Your task to perform on an android device: toggle priority inbox in the gmail app Image 0: 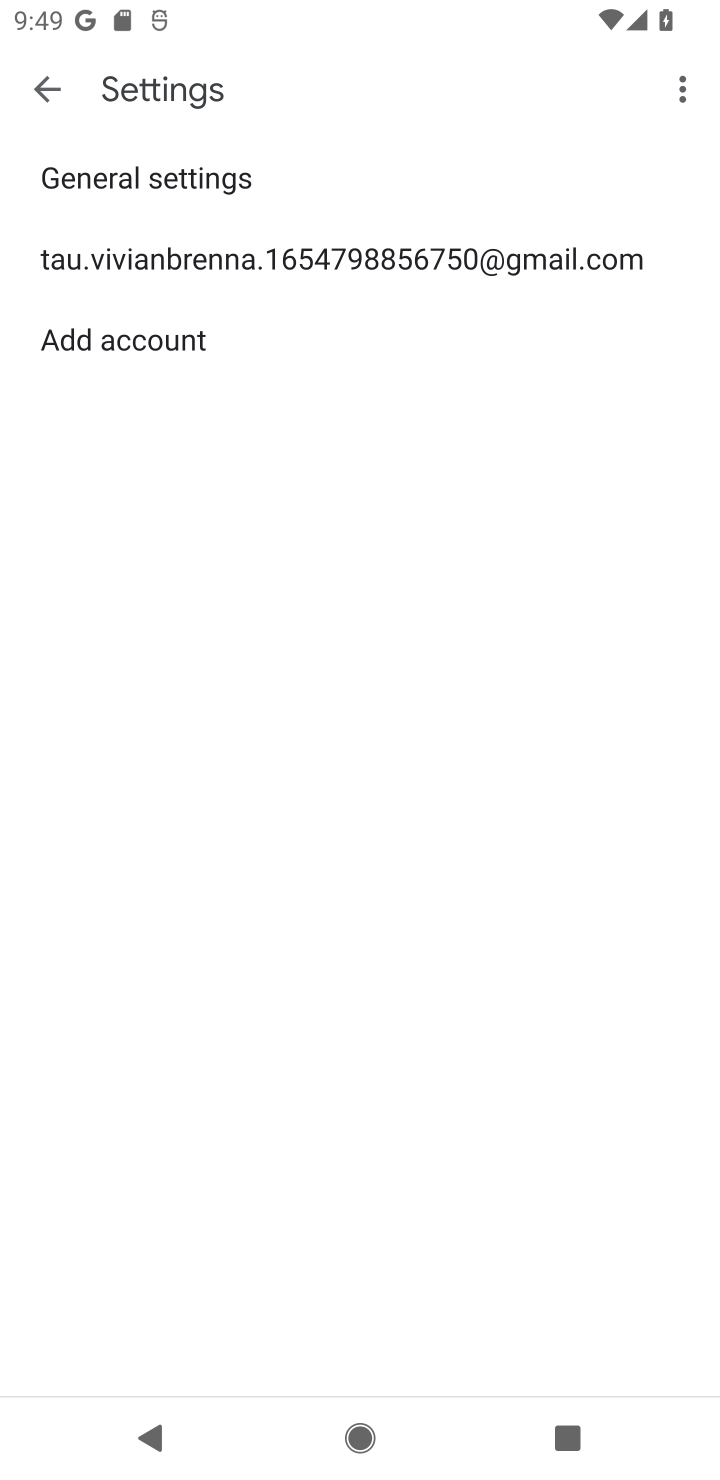
Step 0: press home button
Your task to perform on an android device: toggle priority inbox in the gmail app Image 1: 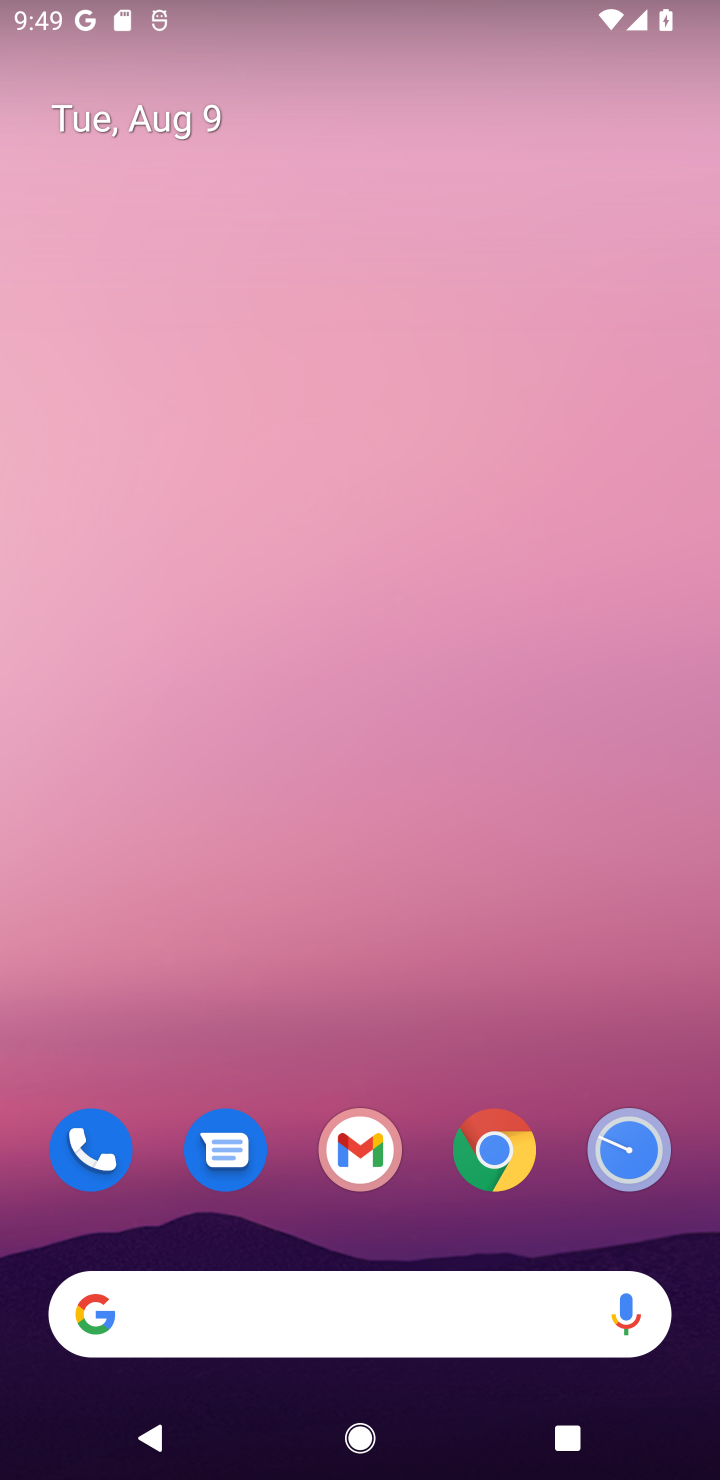
Step 1: drag from (337, 1249) to (299, 222)
Your task to perform on an android device: toggle priority inbox in the gmail app Image 2: 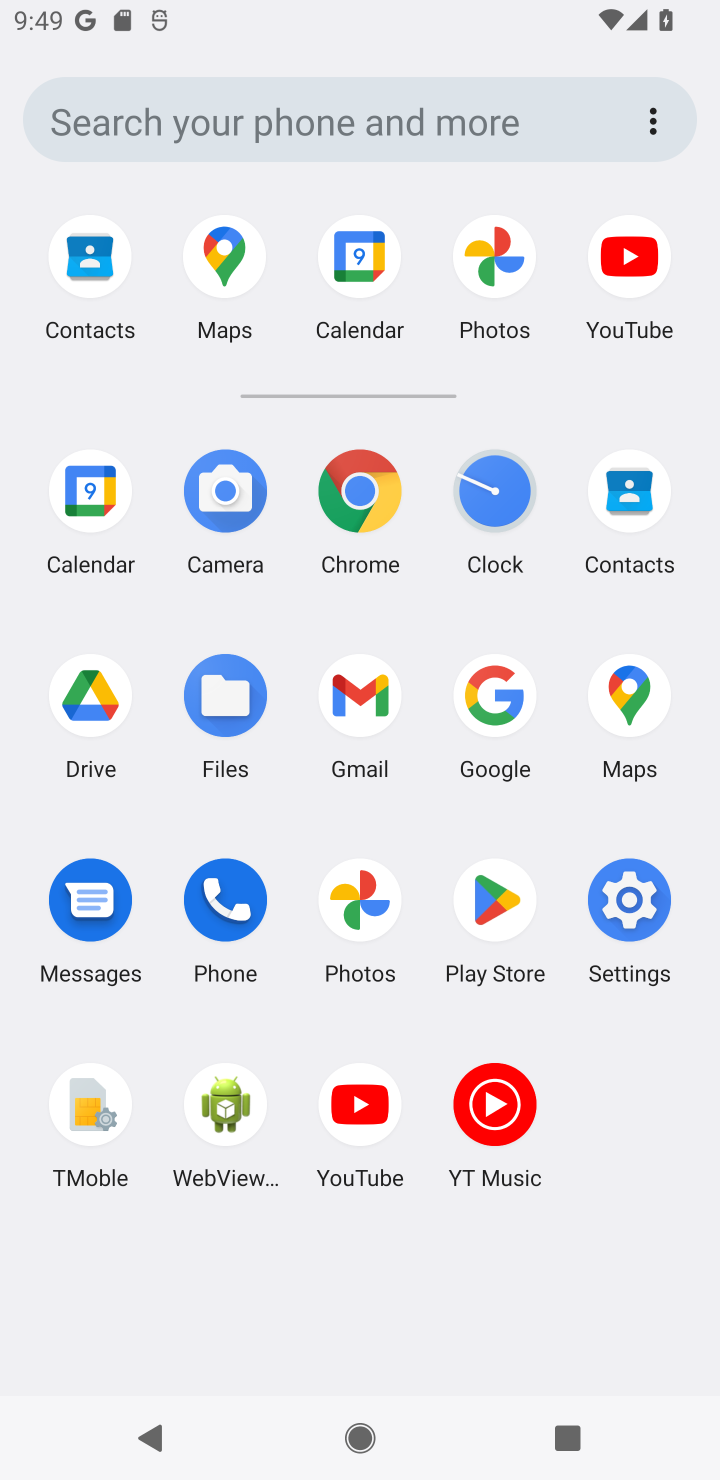
Step 2: click (359, 746)
Your task to perform on an android device: toggle priority inbox in the gmail app Image 3: 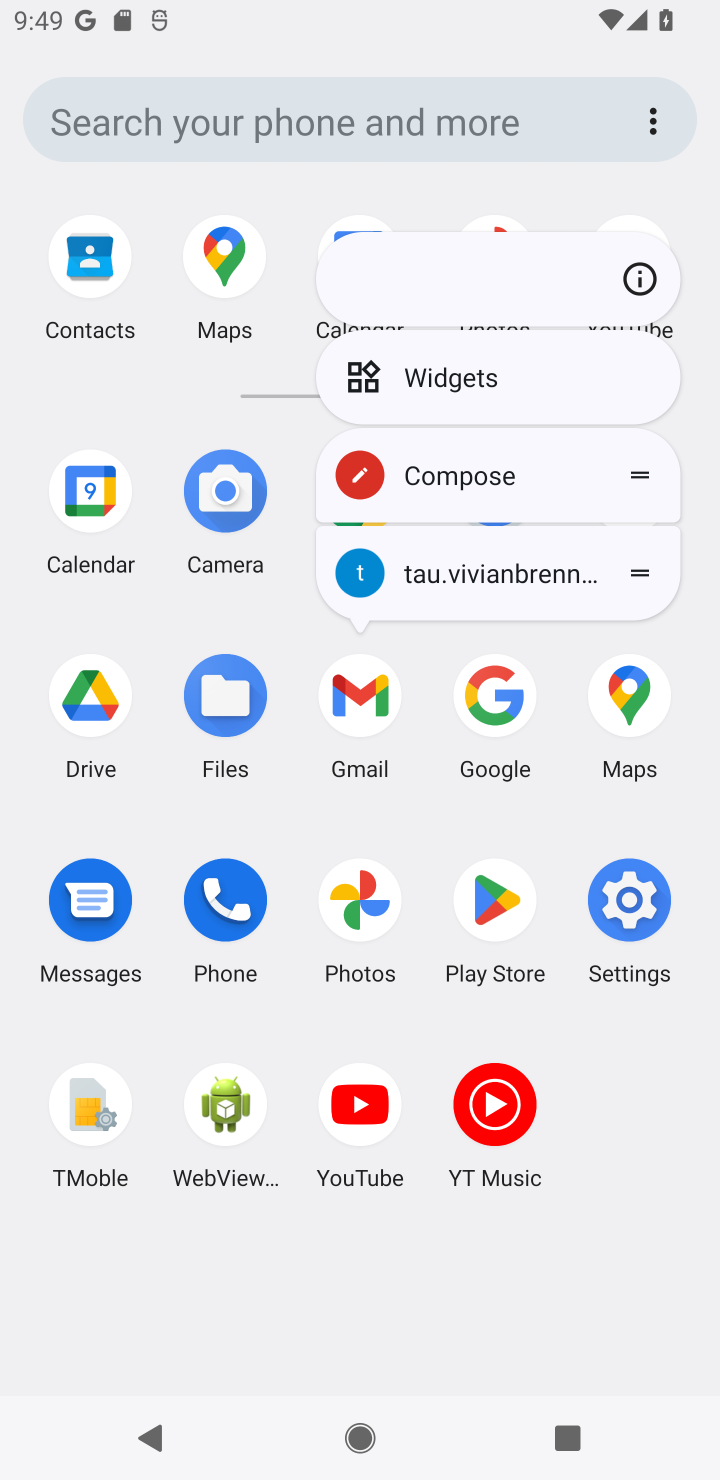
Step 3: click (359, 745)
Your task to perform on an android device: toggle priority inbox in the gmail app Image 4: 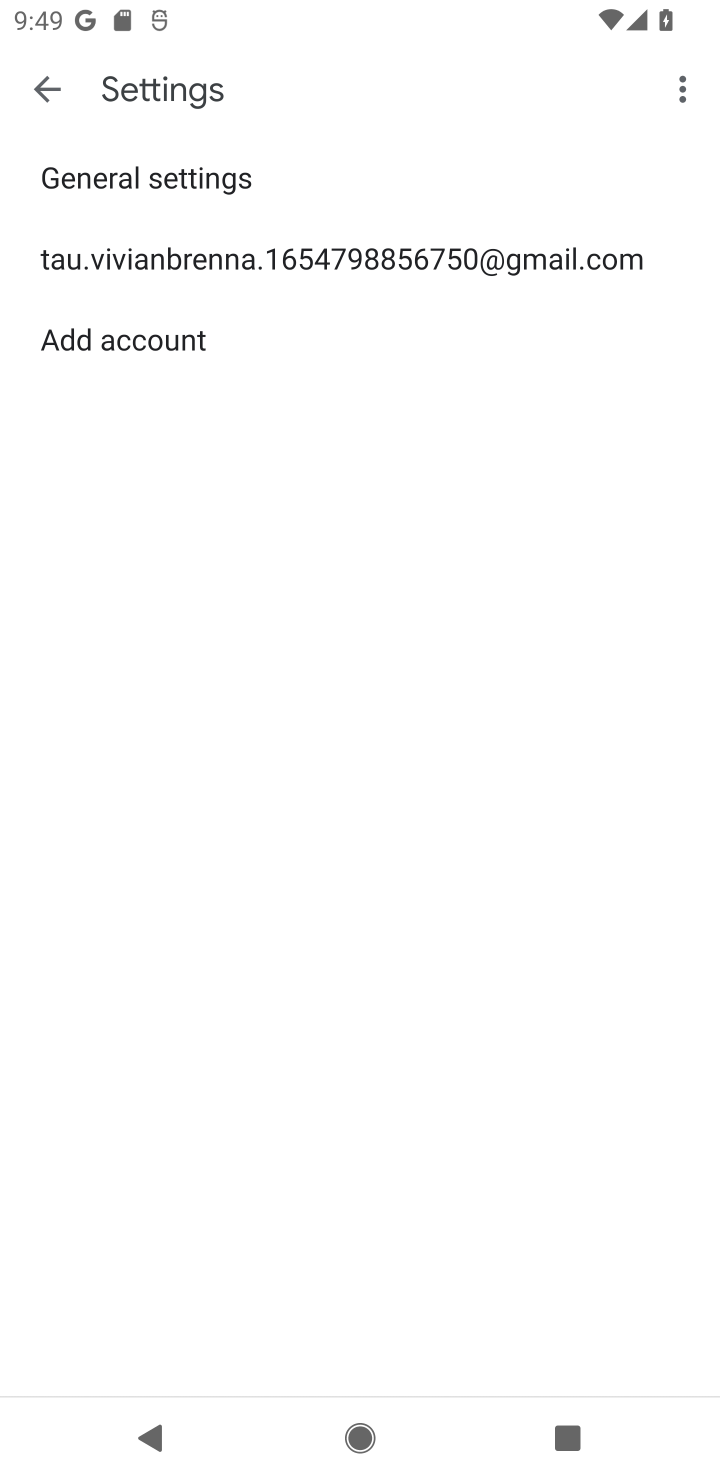
Step 4: click (128, 278)
Your task to perform on an android device: toggle priority inbox in the gmail app Image 5: 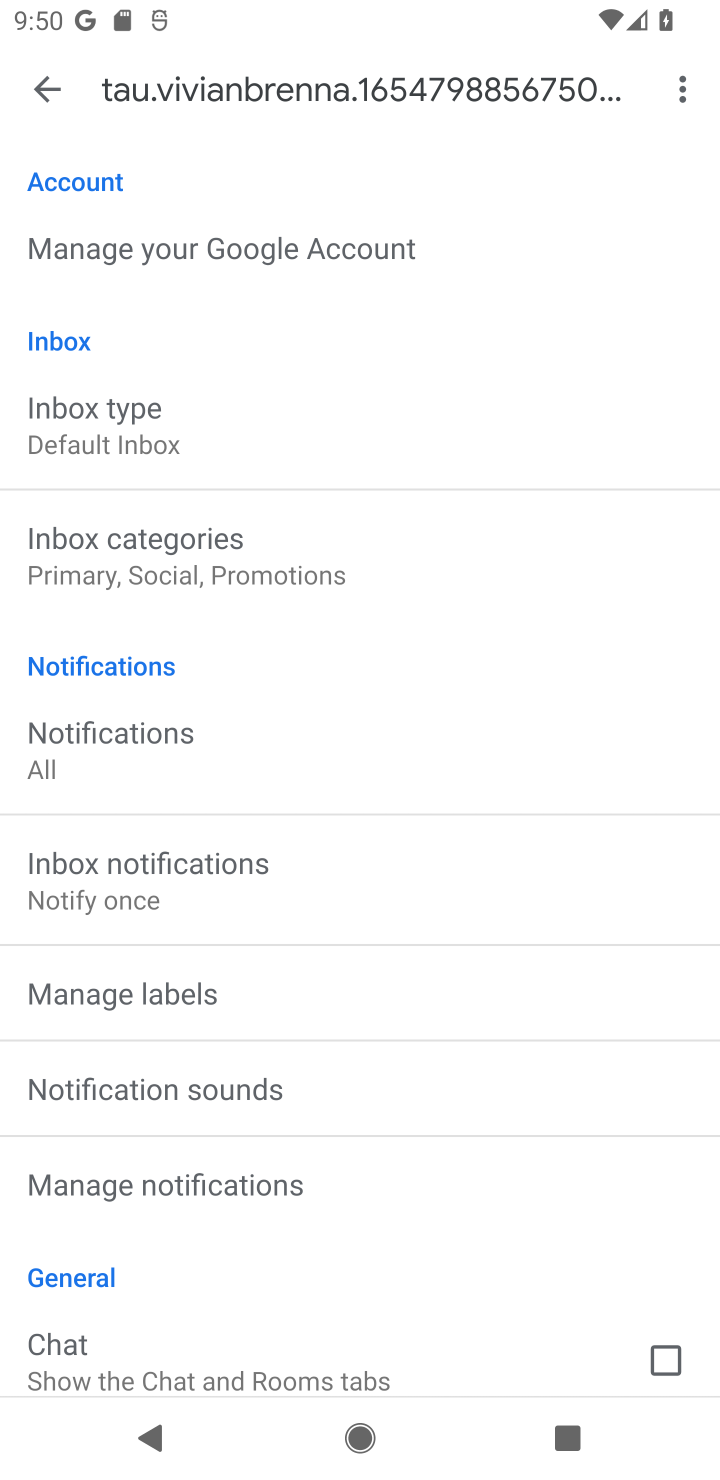
Step 5: click (121, 464)
Your task to perform on an android device: toggle priority inbox in the gmail app Image 6: 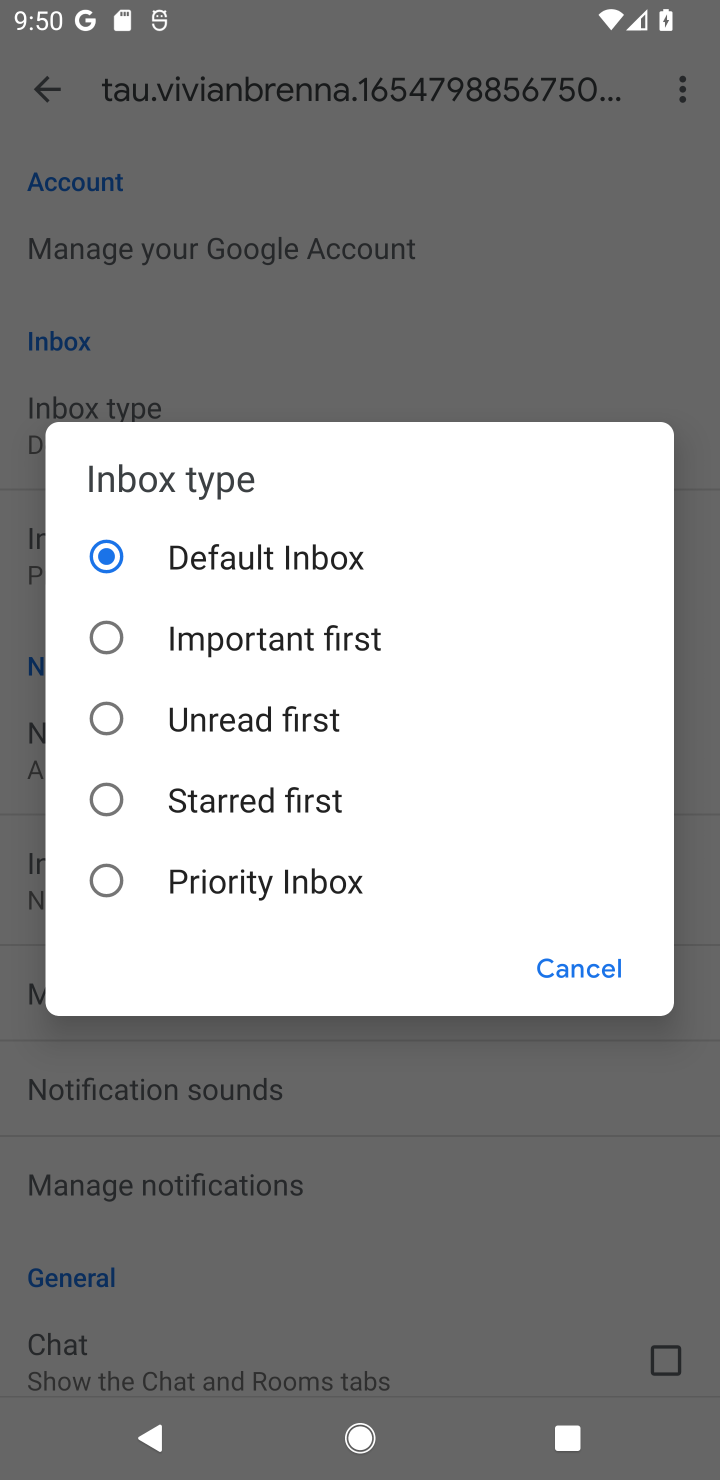
Step 6: click (211, 878)
Your task to perform on an android device: toggle priority inbox in the gmail app Image 7: 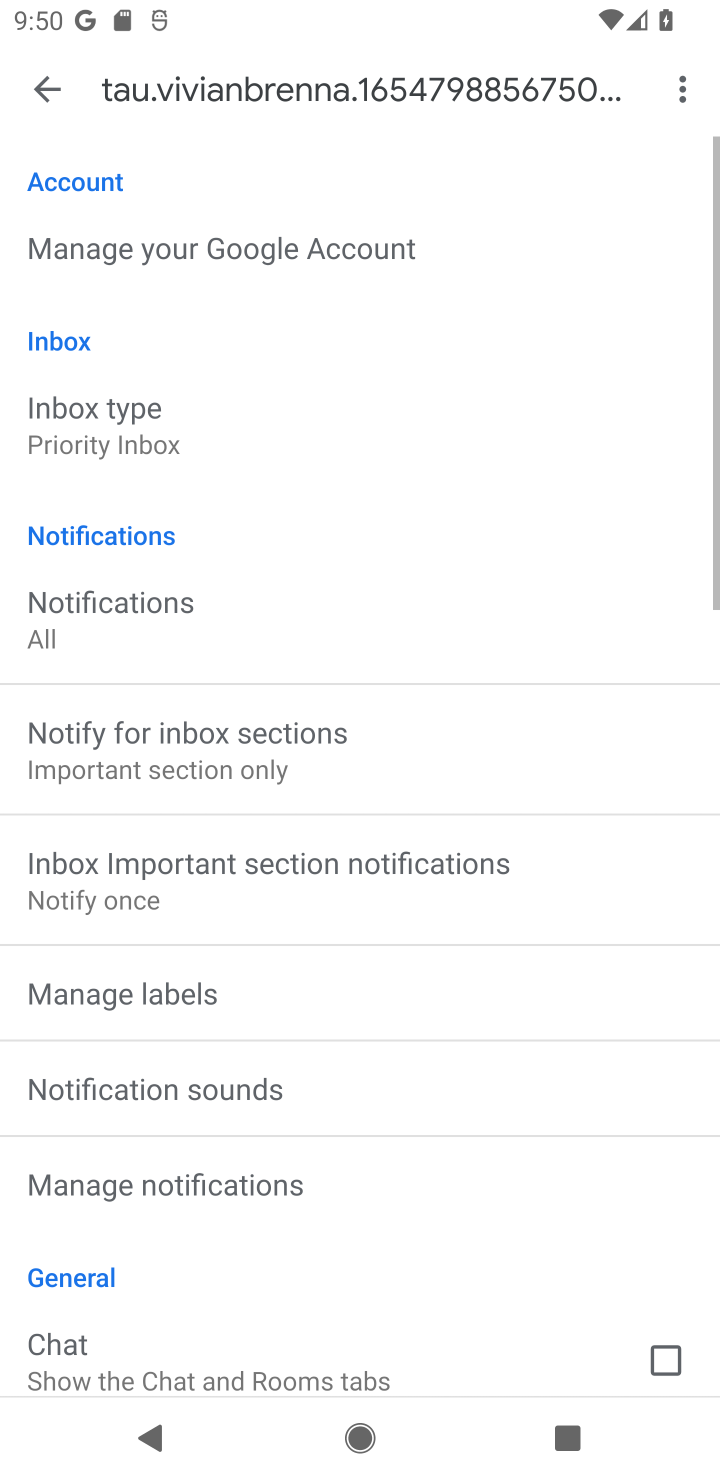
Step 7: task complete